Your task to perform on an android device: Go to eBay Image 0: 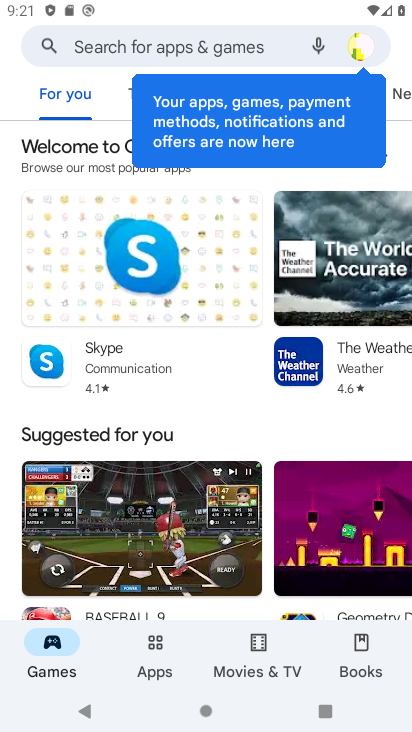
Step 0: press home button
Your task to perform on an android device: Go to eBay Image 1: 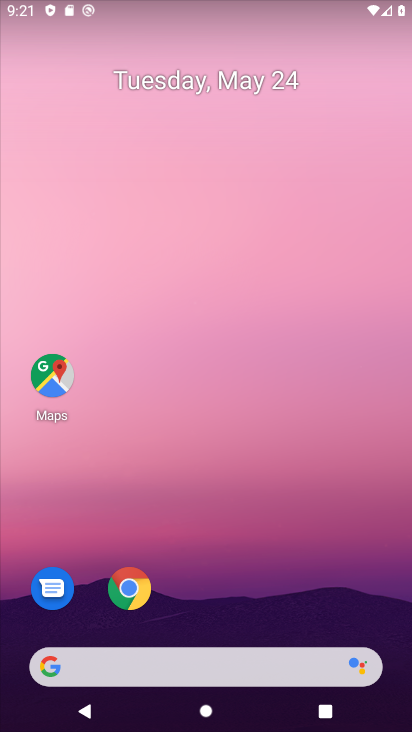
Step 1: click (136, 593)
Your task to perform on an android device: Go to eBay Image 2: 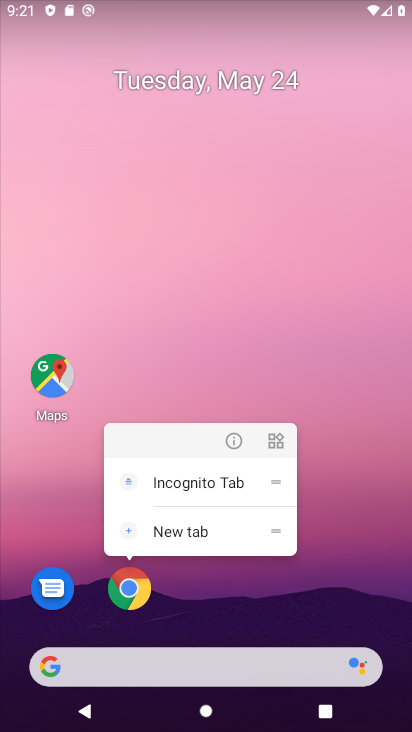
Step 2: click (129, 585)
Your task to perform on an android device: Go to eBay Image 3: 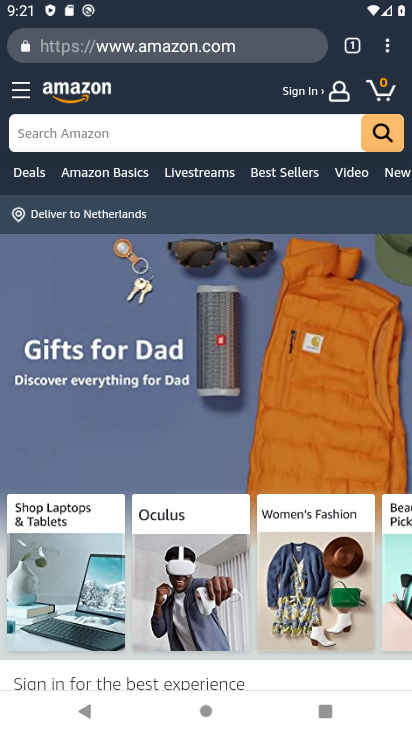
Step 3: click (345, 42)
Your task to perform on an android device: Go to eBay Image 4: 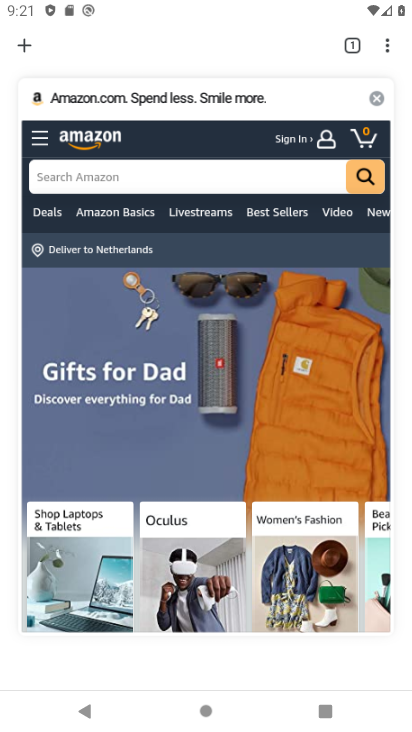
Step 4: click (23, 49)
Your task to perform on an android device: Go to eBay Image 5: 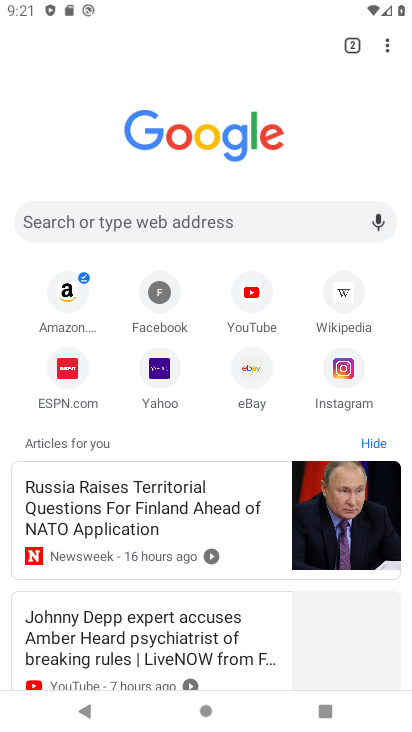
Step 5: click (256, 381)
Your task to perform on an android device: Go to eBay Image 6: 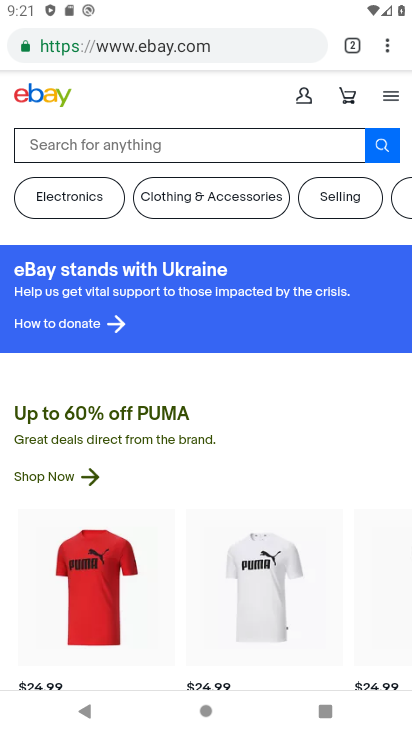
Step 6: task complete